Your task to perform on an android device: Open wifi settings Image 0: 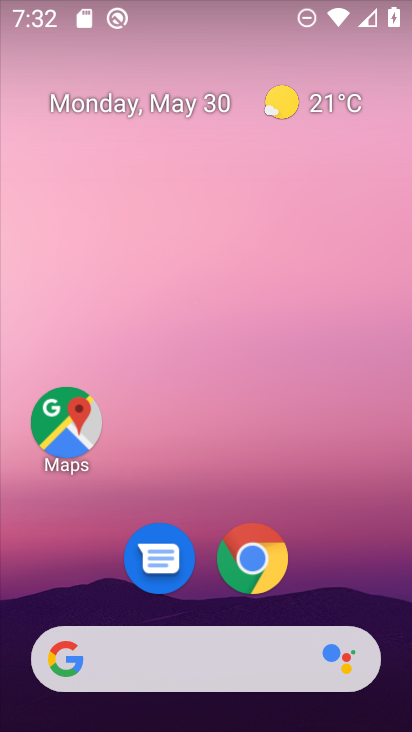
Step 0: drag from (286, 470) to (206, 64)
Your task to perform on an android device: Open wifi settings Image 1: 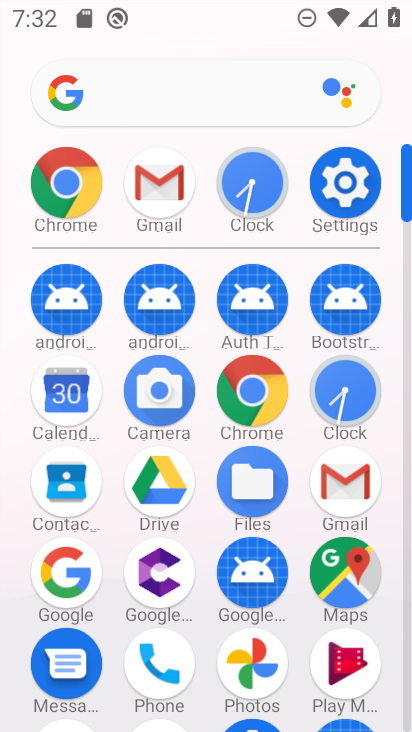
Step 1: click (341, 169)
Your task to perform on an android device: Open wifi settings Image 2: 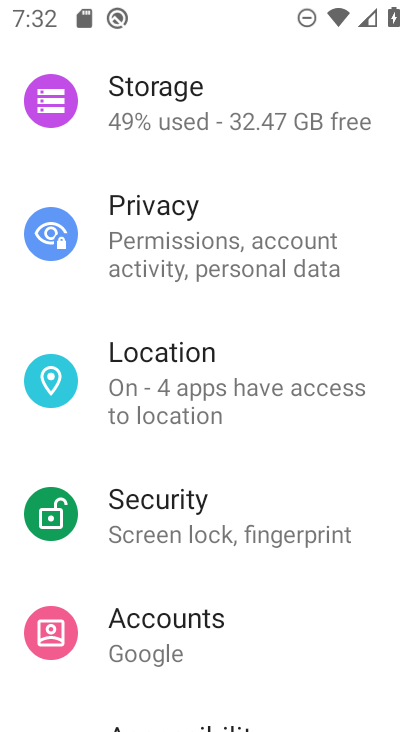
Step 2: drag from (144, 178) to (292, 690)
Your task to perform on an android device: Open wifi settings Image 3: 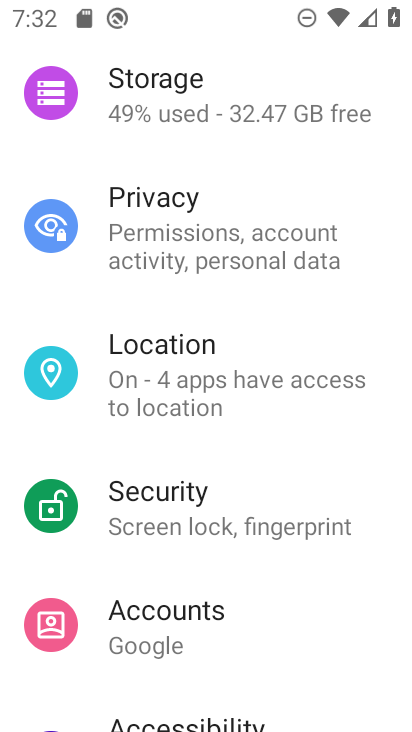
Step 3: drag from (240, 159) to (277, 457)
Your task to perform on an android device: Open wifi settings Image 4: 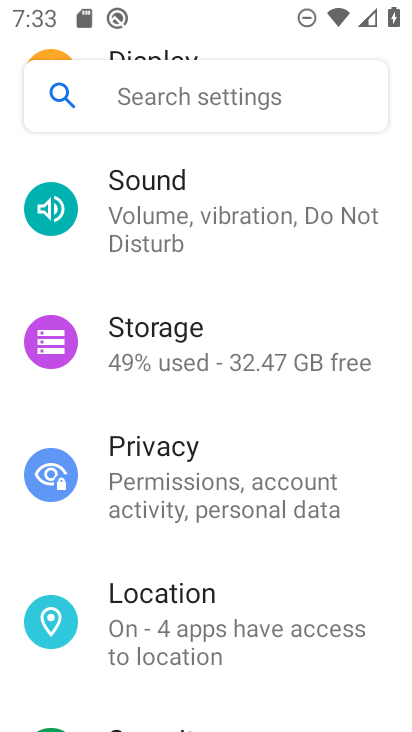
Step 4: drag from (231, 275) to (400, 680)
Your task to perform on an android device: Open wifi settings Image 5: 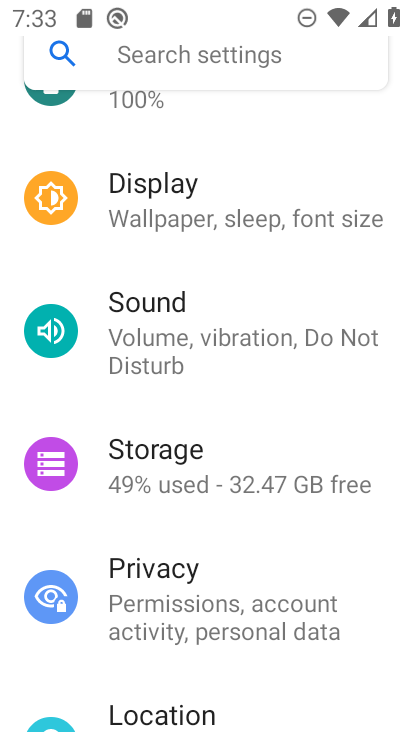
Step 5: drag from (209, 265) to (259, 731)
Your task to perform on an android device: Open wifi settings Image 6: 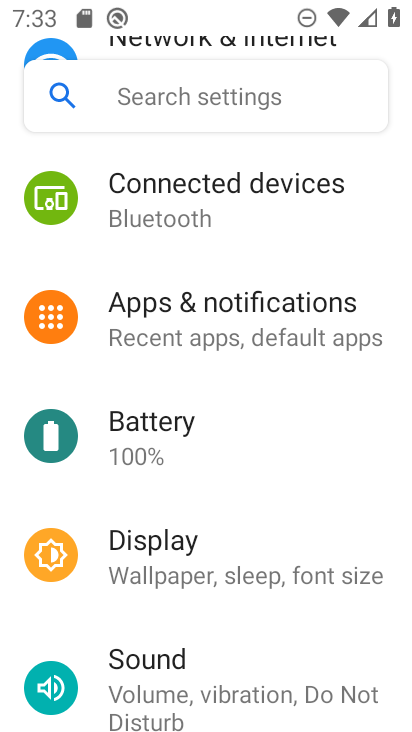
Step 6: drag from (230, 248) to (278, 693)
Your task to perform on an android device: Open wifi settings Image 7: 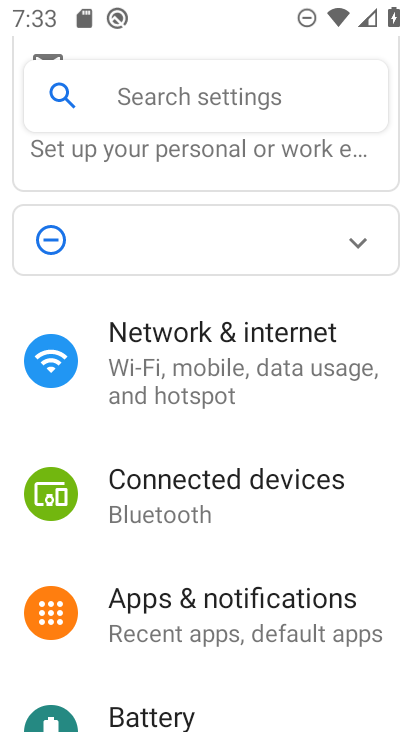
Step 7: click (222, 341)
Your task to perform on an android device: Open wifi settings Image 8: 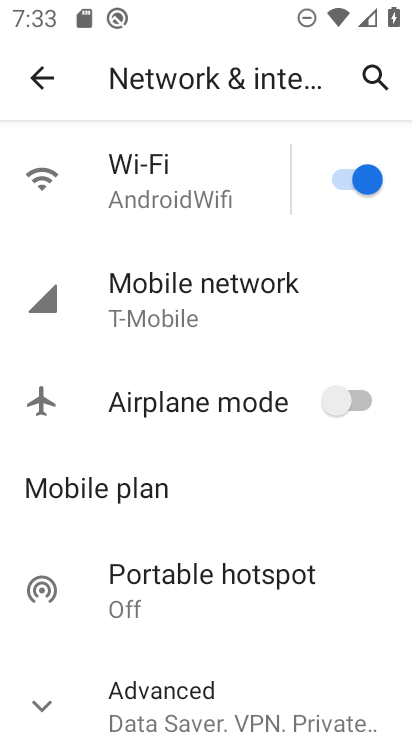
Step 8: click (168, 152)
Your task to perform on an android device: Open wifi settings Image 9: 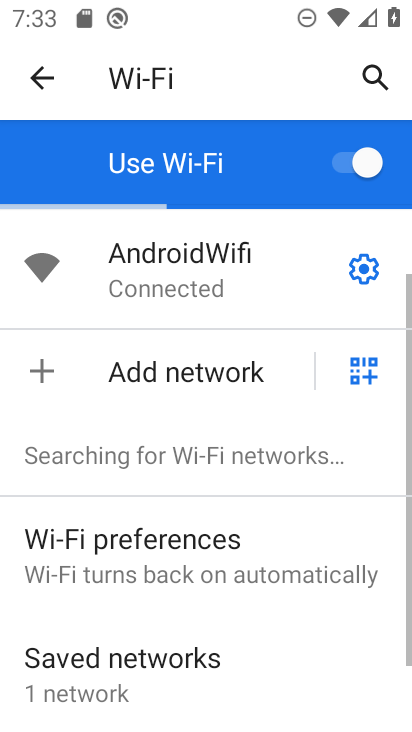
Step 9: task complete